Your task to perform on an android device: What is the recent news? Image 0: 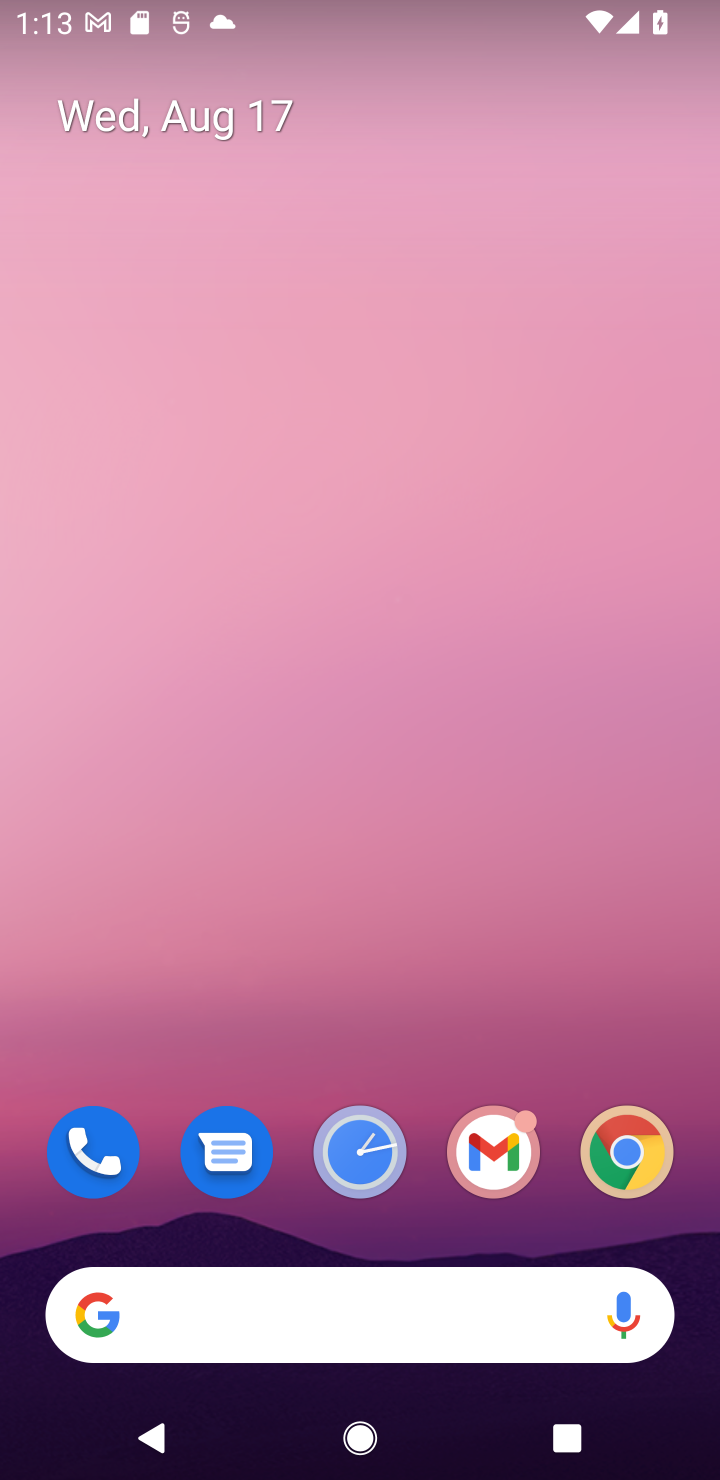
Step 0: drag from (563, 1230) to (346, 86)
Your task to perform on an android device: What is the recent news? Image 1: 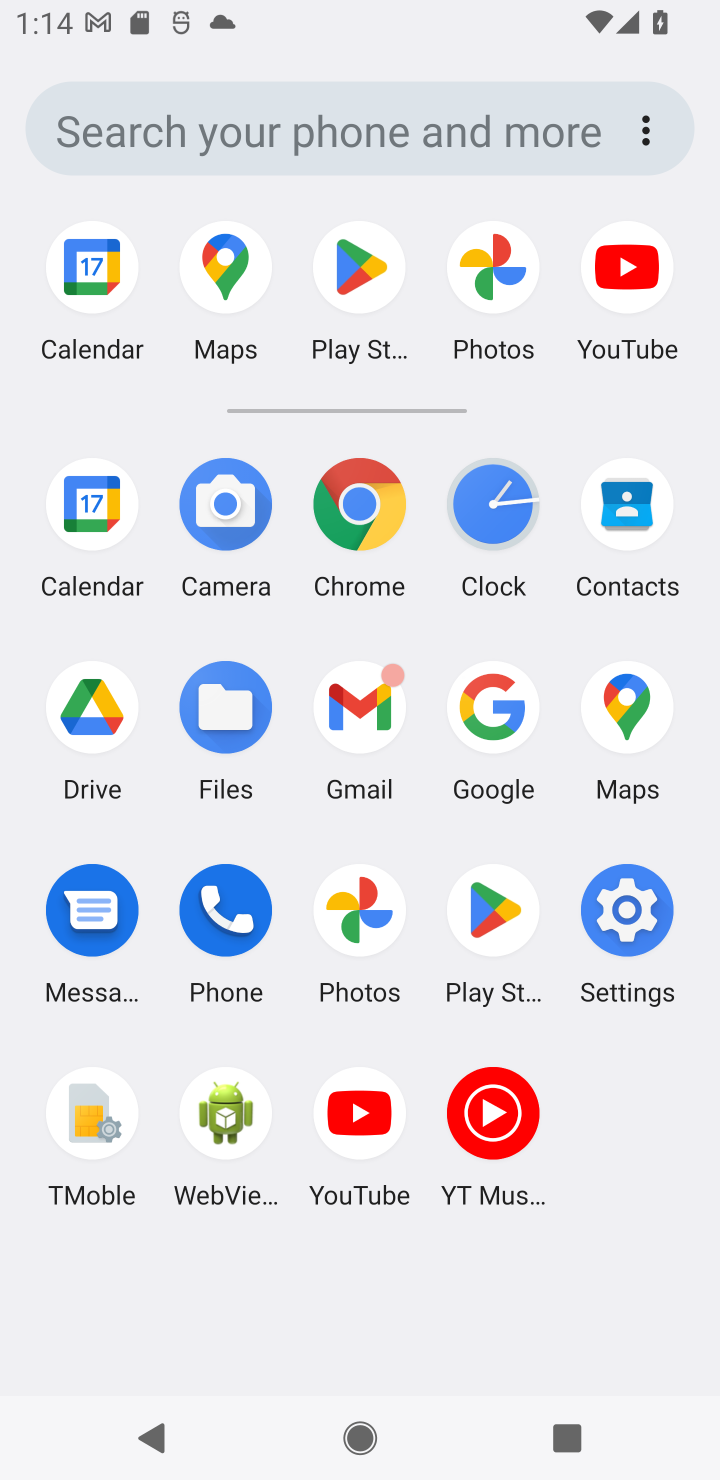
Step 1: click (484, 707)
Your task to perform on an android device: What is the recent news? Image 2: 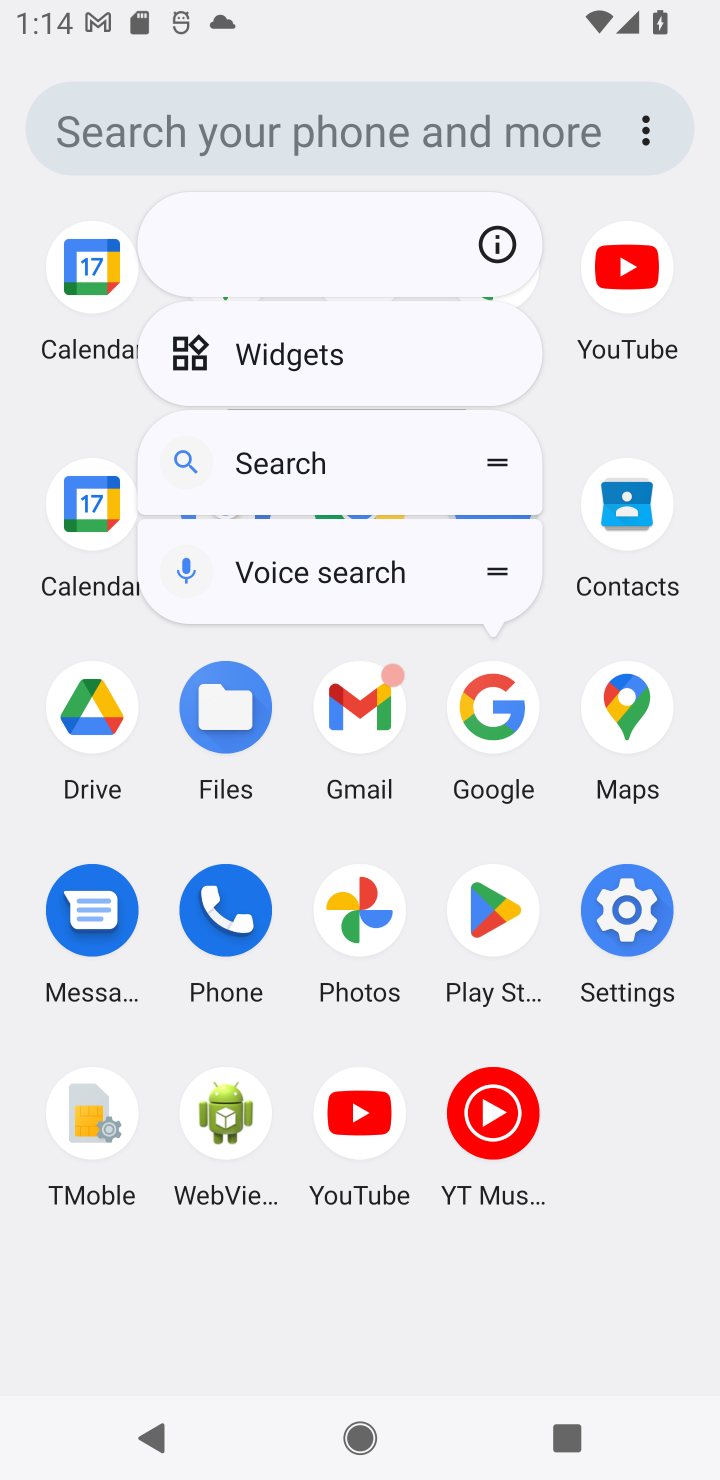
Step 2: click (492, 710)
Your task to perform on an android device: What is the recent news? Image 3: 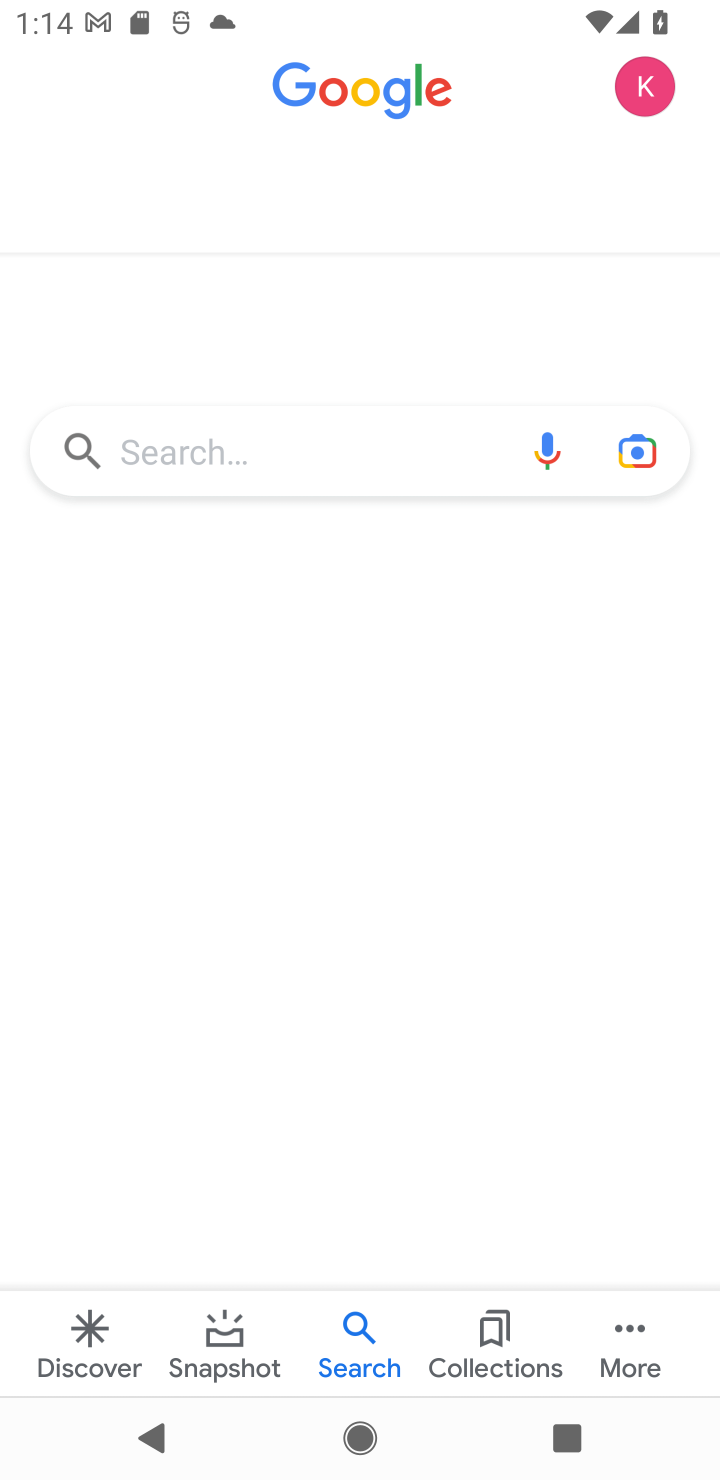
Step 3: click (183, 437)
Your task to perform on an android device: What is the recent news? Image 4: 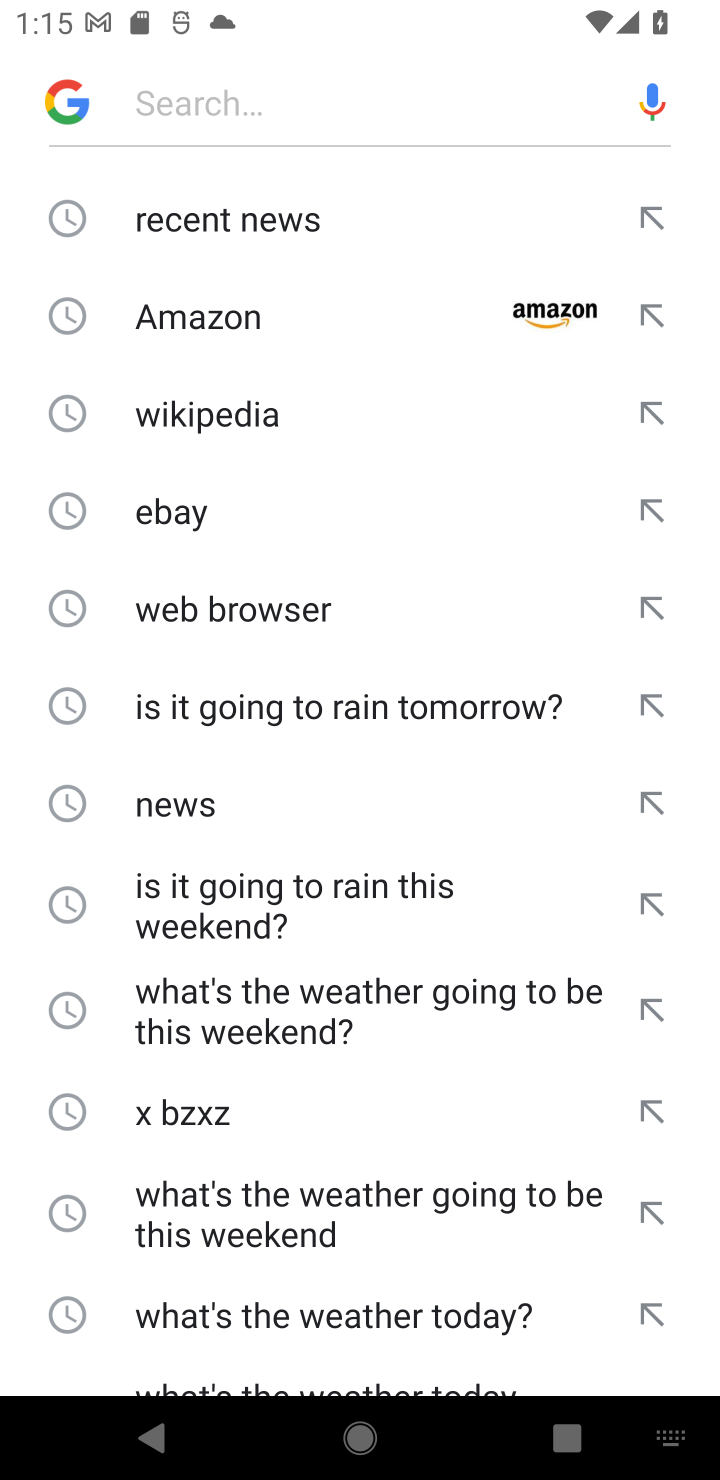
Step 4: click (202, 241)
Your task to perform on an android device: What is the recent news? Image 5: 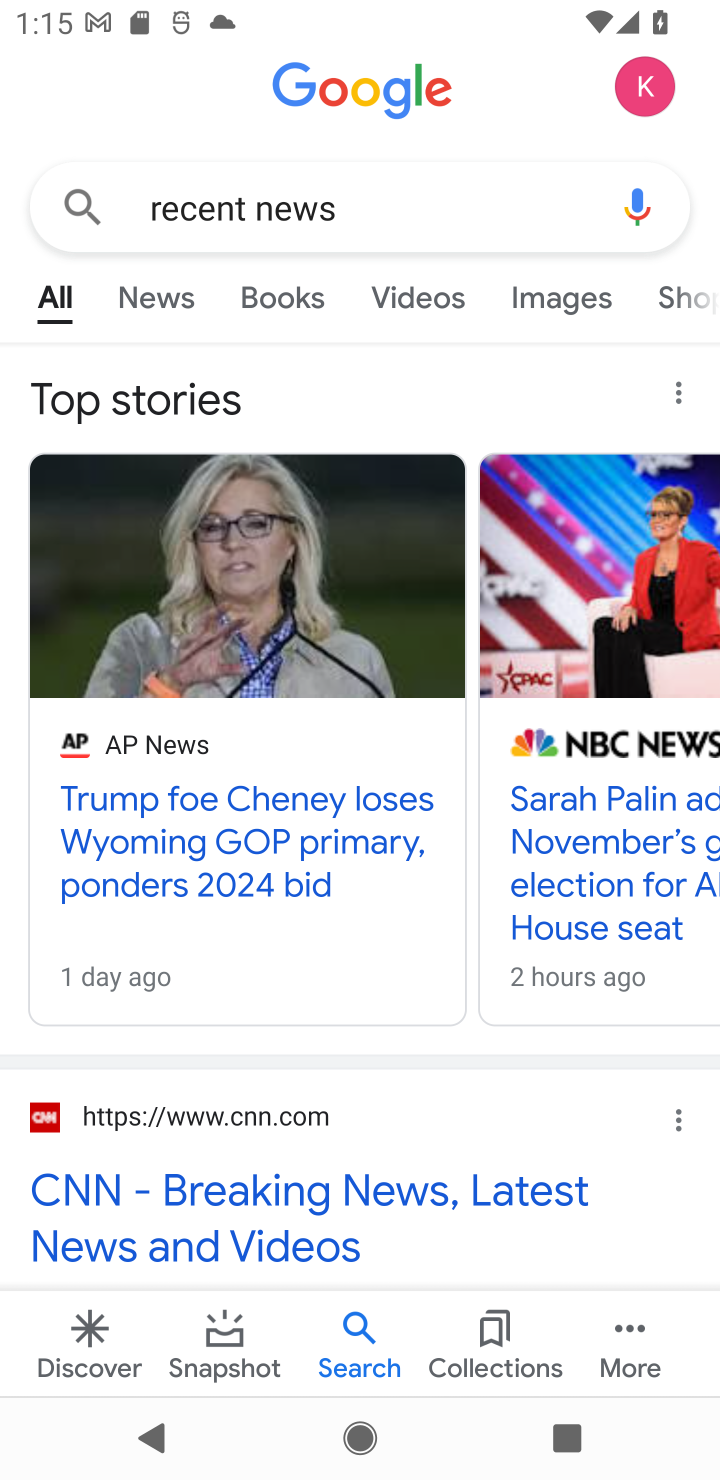
Step 5: task complete